Your task to perform on an android device: manage bookmarks in the chrome app Image 0: 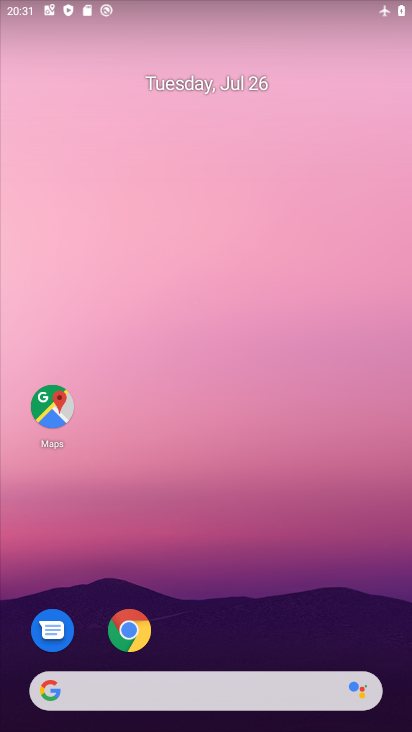
Step 0: click (145, 636)
Your task to perform on an android device: manage bookmarks in the chrome app Image 1: 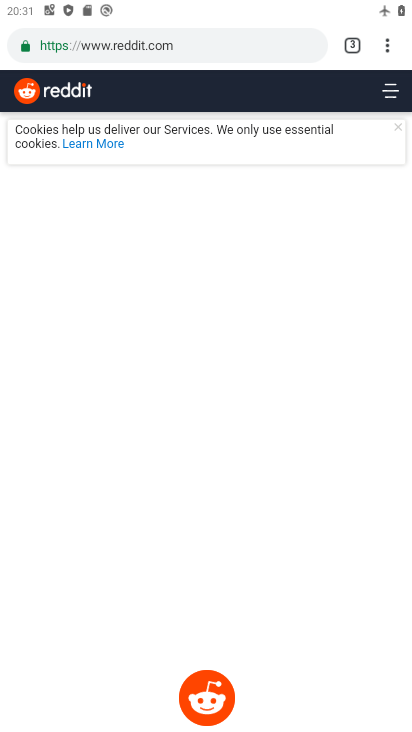
Step 1: click (385, 48)
Your task to perform on an android device: manage bookmarks in the chrome app Image 2: 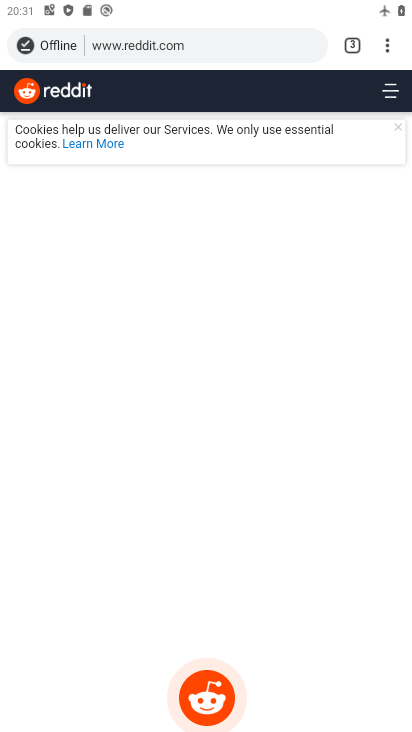
Step 2: click (390, 44)
Your task to perform on an android device: manage bookmarks in the chrome app Image 3: 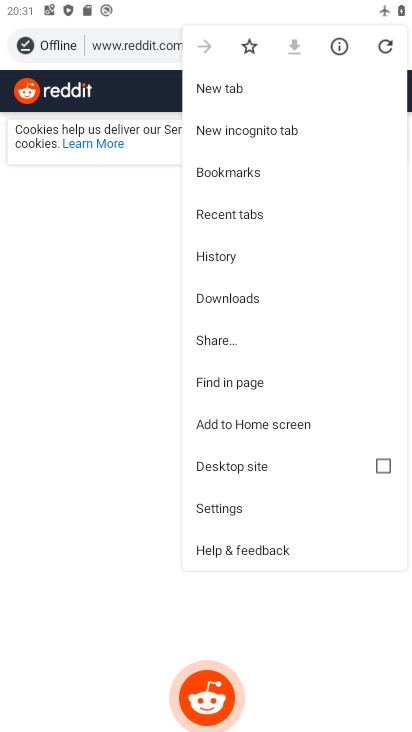
Step 3: click (285, 161)
Your task to perform on an android device: manage bookmarks in the chrome app Image 4: 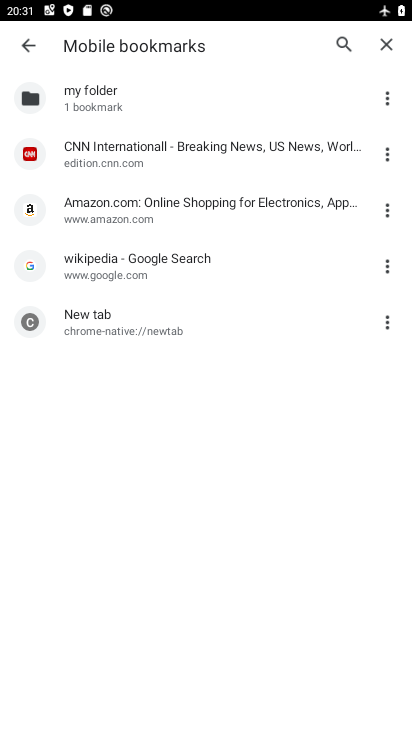
Step 4: task complete